Your task to perform on an android device: turn on translation in the chrome app Image 0: 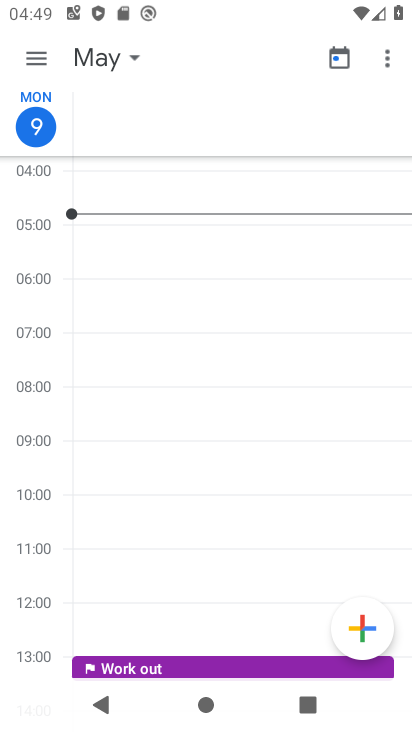
Step 0: press home button
Your task to perform on an android device: turn on translation in the chrome app Image 1: 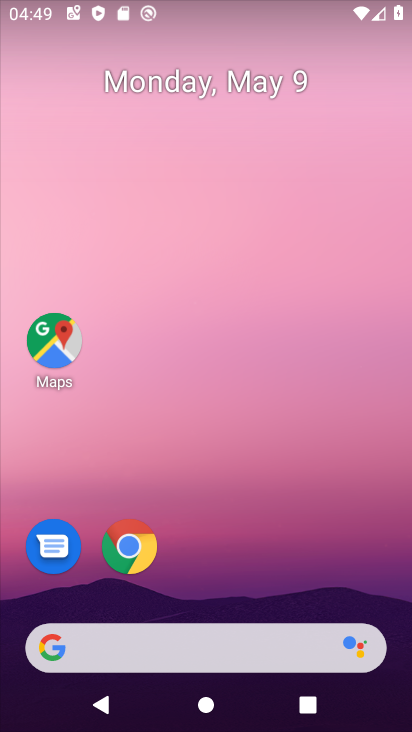
Step 1: click (133, 553)
Your task to perform on an android device: turn on translation in the chrome app Image 2: 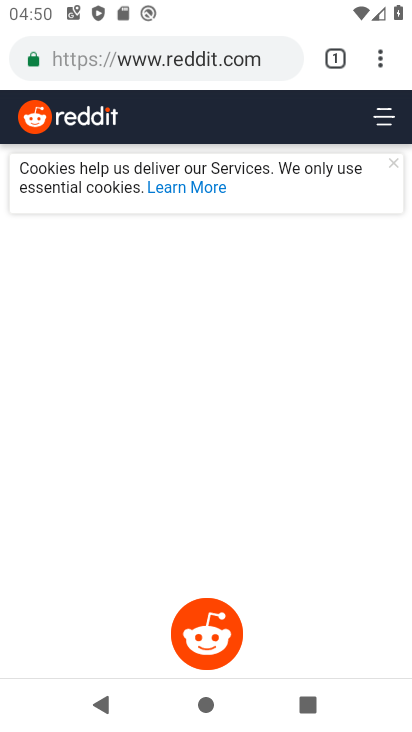
Step 2: click (384, 64)
Your task to perform on an android device: turn on translation in the chrome app Image 3: 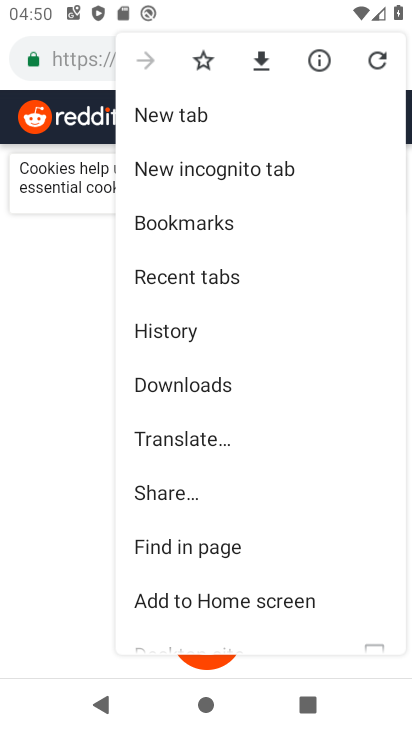
Step 3: drag from (191, 507) to (253, 247)
Your task to perform on an android device: turn on translation in the chrome app Image 4: 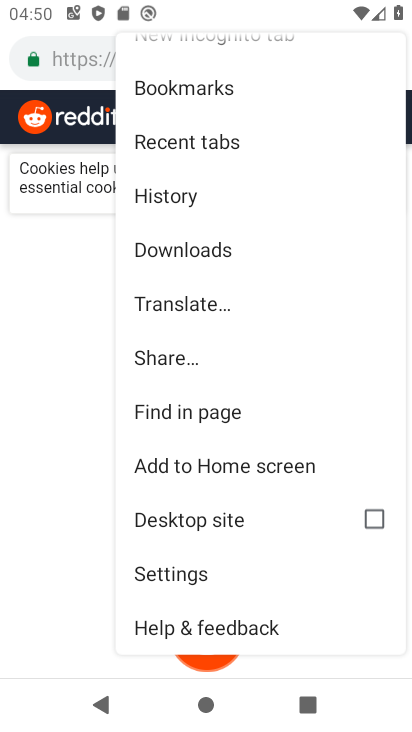
Step 4: click (186, 582)
Your task to perform on an android device: turn on translation in the chrome app Image 5: 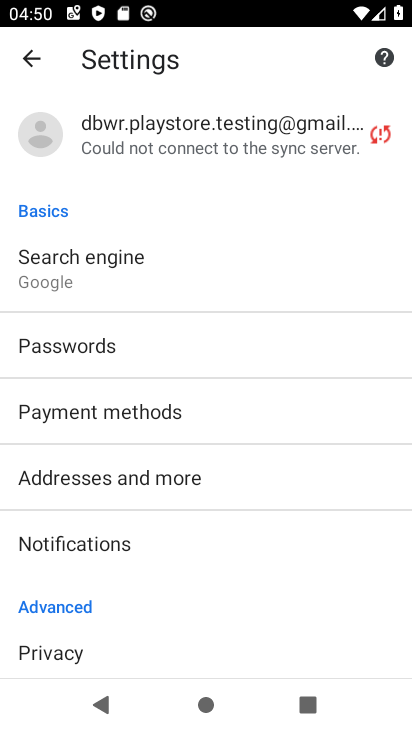
Step 5: drag from (96, 571) to (154, 279)
Your task to perform on an android device: turn on translation in the chrome app Image 6: 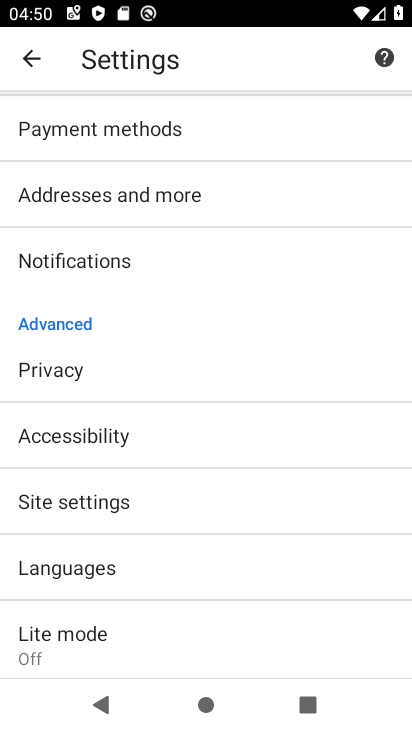
Step 6: drag from (101, 570) to (101, 476)
Your task to perform on an android device: turn on translation in the chrome app Image 7: 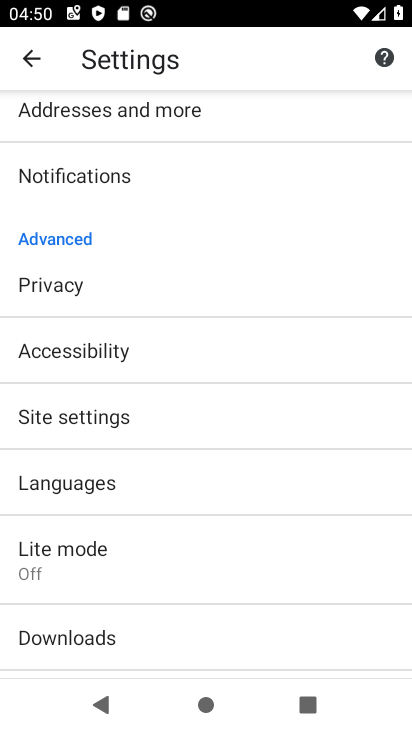
Step 7: click (70, 499)
Your task to perform on an android device: turn on translation in the chrome app Image 8: 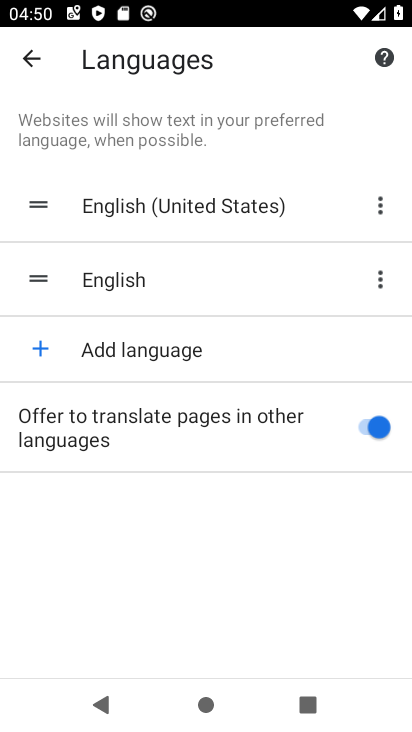
Step 8: task complete